Your task to perform on an android device: Open calendar and show me the third week of next month Image 0: 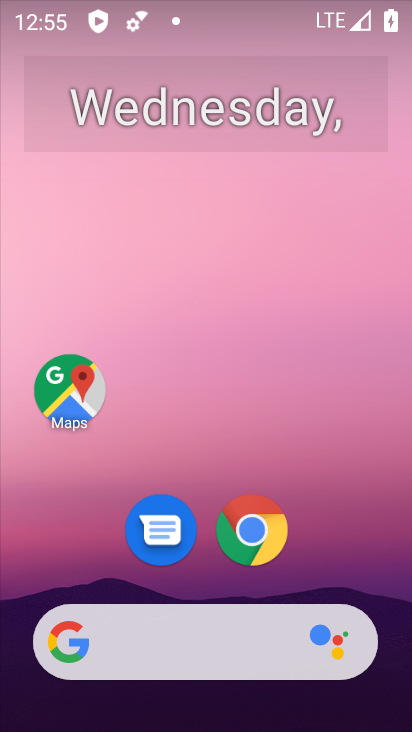
Step 0: drag from (361, 556) to (337, 211)
Your task to perform on an android device: Open calendar and show me the third week of next month Image 1: 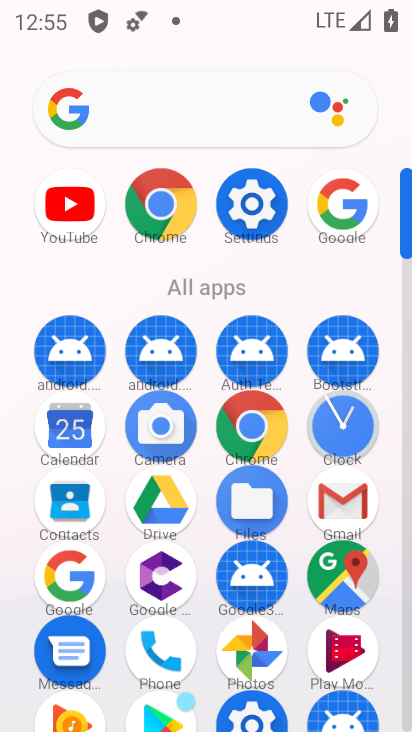
Step 1: click (81, 431)
Your task to perform on an android device: Open calendar and show me the third week of next month Image 2: 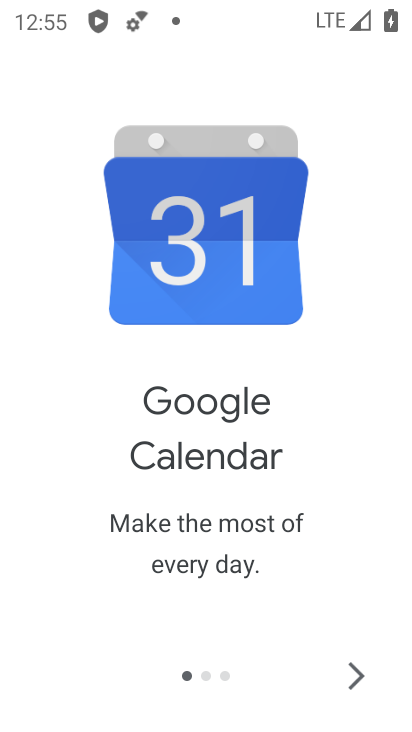
Step 2: click (345, 672)
Your task to perform on an android device: Open calendar and show me the third week of next month Image 3: 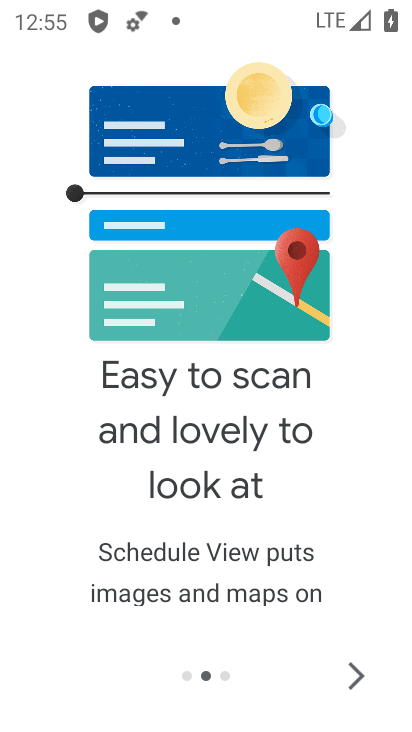
Step 3: click (345, 672)
Your task to perform on an android device: Open calendar and show me the third week of next month Image 4: 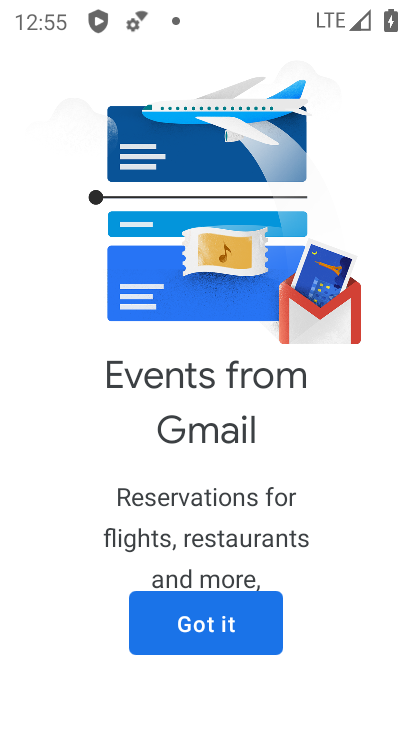
Step 4: click (215, 618)
Your task to perform on an android device: Open calendar and show me the third week of next month Image 5: 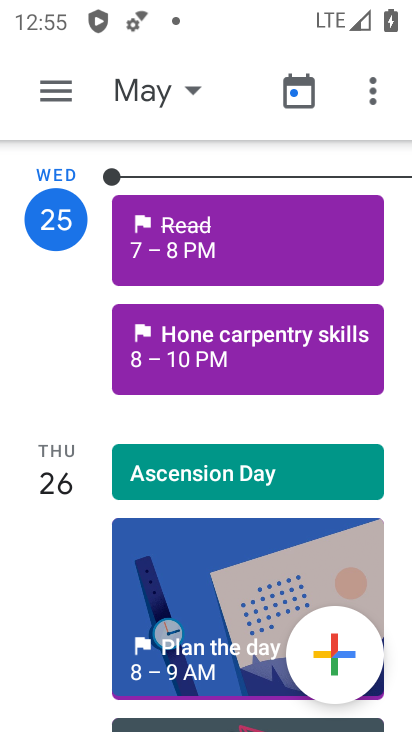
Step 5: click (175, 108)
Your task to perform on an android device: Open calendar and show me the third week of next month Image 6: 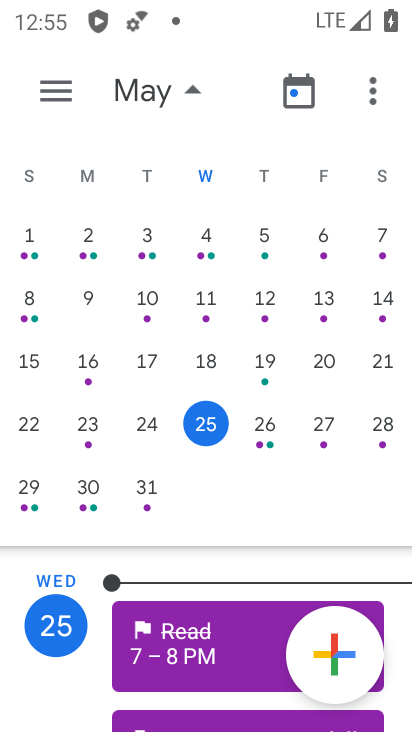
Step 6: drag from (356, 326) to (22, 285)
Your task to perform on an android device: Open calendar and show me the third week of next month Image 7: 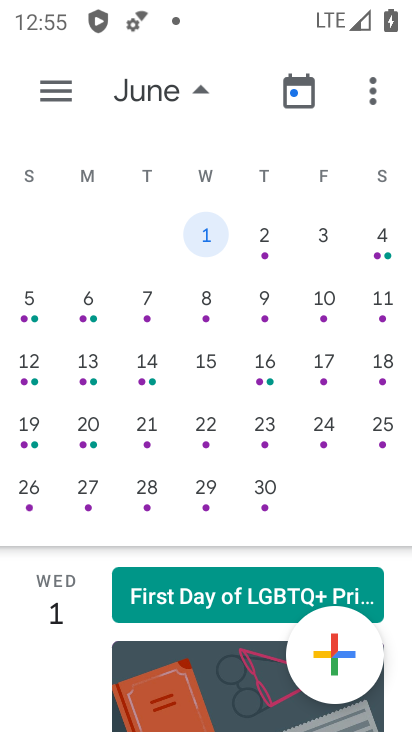
Step 7: click (37, 364)
Your task to perform on an android device: Open calendar and show me the third week of next month Image 8: 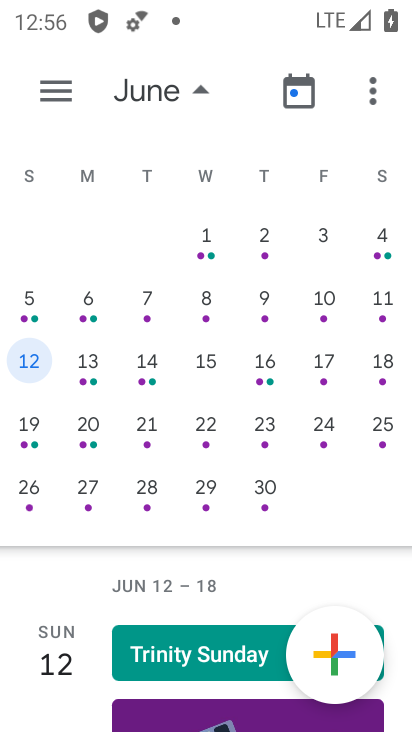
Step 8: task complete